Your task to perform on an android device: allow cookies in the chrome app Image 0: 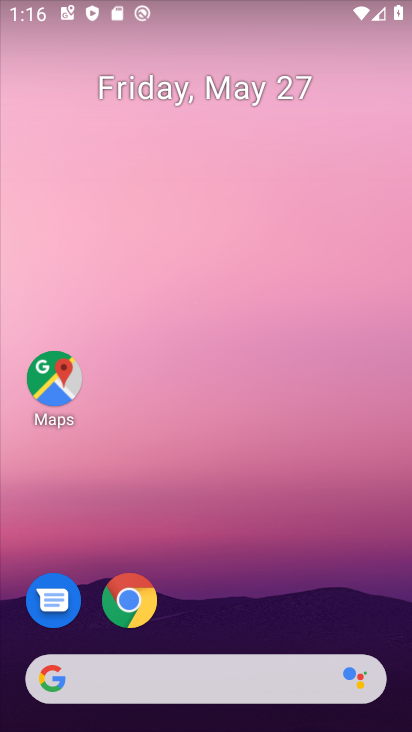
Step 0: click (130, 609)
Your task to perform on an android device: allow cookies in the chrome app Image 1: 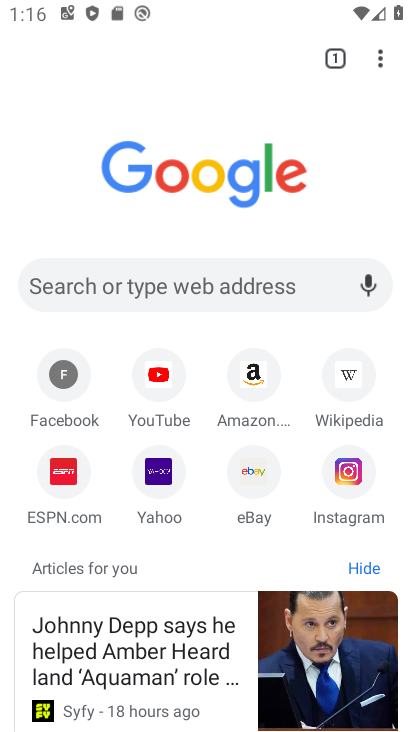
Step 1: click (382, 60)
Your task to perform on an android device: allow cookies in the chrome app Image 2: 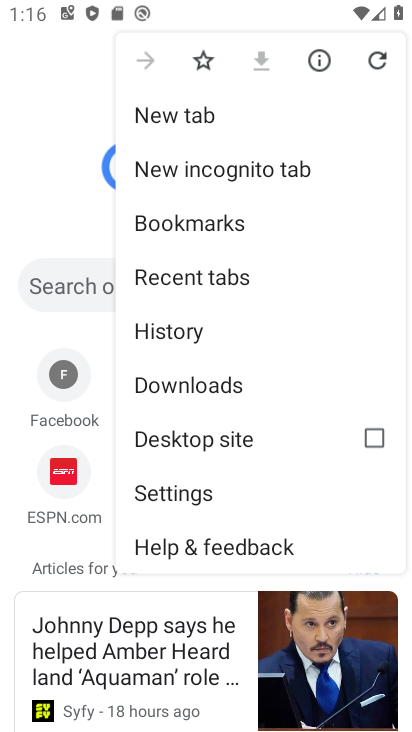
Step 2: click (186, 490)
Your task to perform on an android device: allow cookies in the chrome app Image 3: 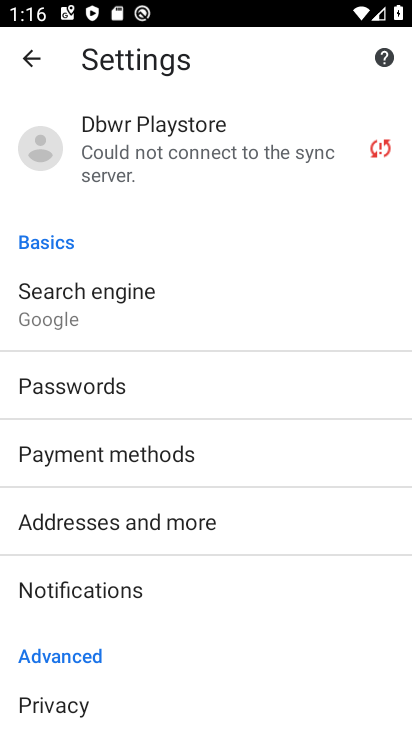
Step 3: drag from (202, 685) to (198, 285)
Your task to perform on an android device: allow cookies in the chrome app Image 4: 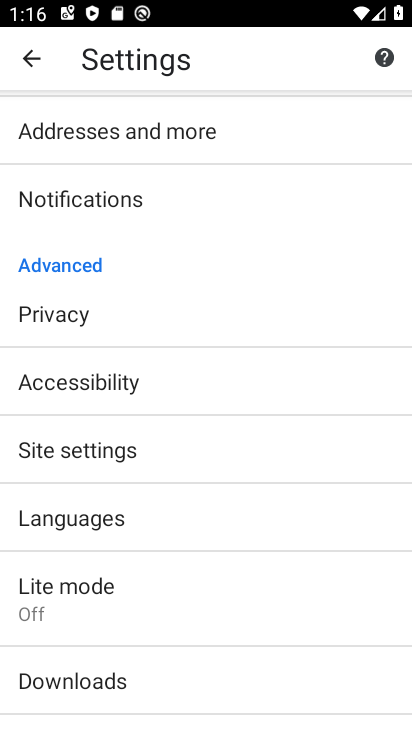
Step 4: click (89, 449)
Your task to perform on an android device: allow cookies in the chrome app Image 5: 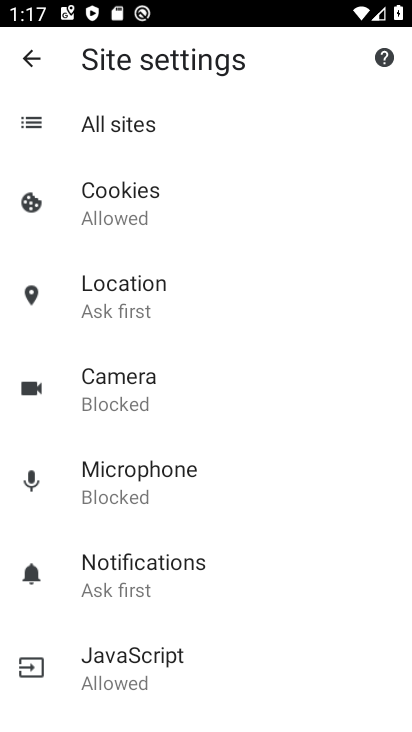
Step 5: click (132, 198)
Your task to perform on an android device: allow cookies in the chrome app Image 6: 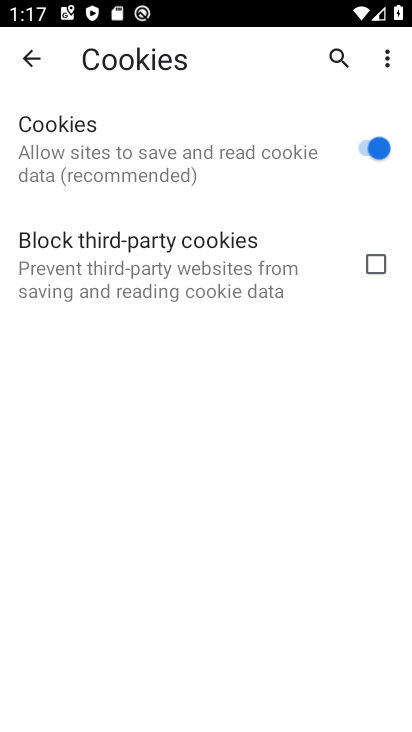
Step 6: task complete